Your task to perform on an android device: Open Youtube and go to "Your channel" Image 0: 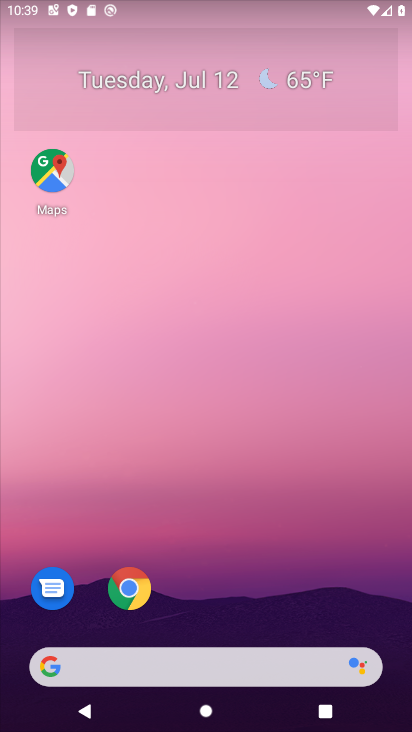
Step 0: drag from (47, 686) to (205, 238)
Your task to perform on an android device: Open Youtube and go to "Your channel" Image 1: 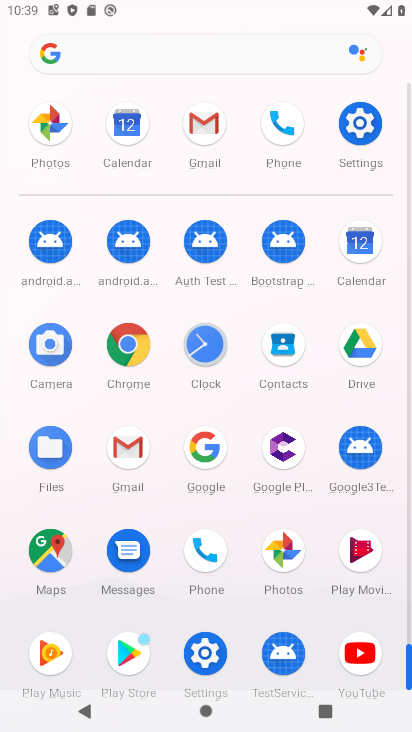
Step 1: click (366, 653)
Your task to perform on an android device: Open Youtube and go to "Your channel" Image 2: 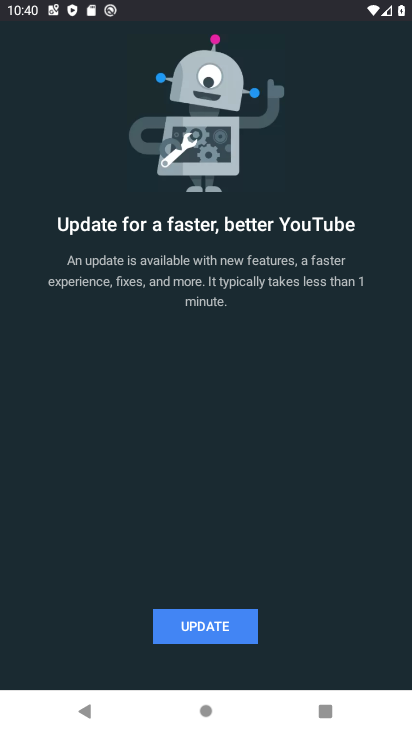
Step 2: click (185, 642)
Your task to perform on an android device: Open Youtube and go to "Your channel" Image 3: 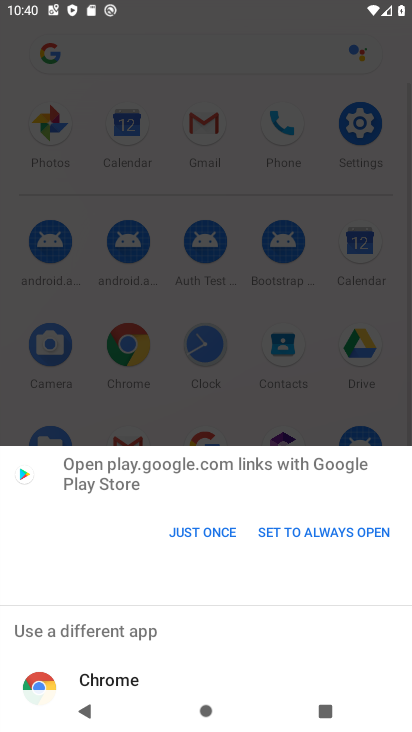
Step 3: click (218, 544)
Your task to perform on an android device: Open Youtube and go to "Your channel" Image 4: 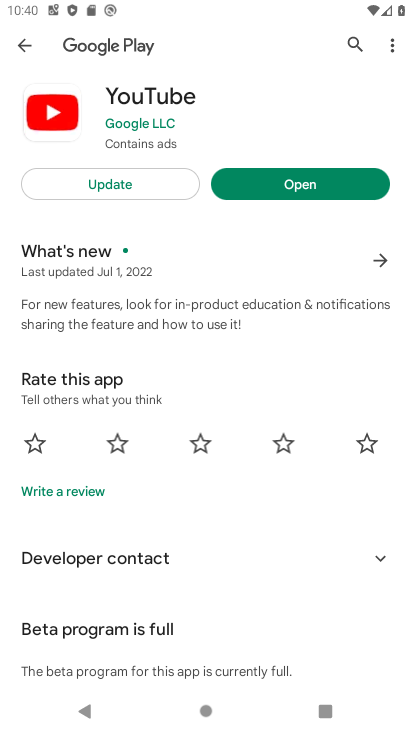
Step 4: click (256, 183)
Your task to perform on an android device: Open Youtube and go to "Your channel" Image 5: 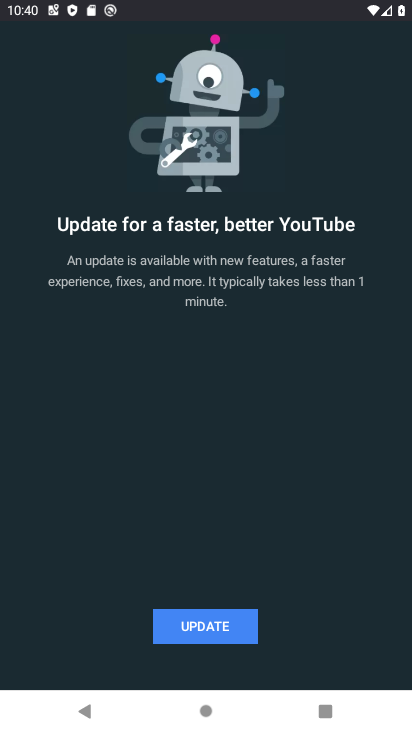
Step 5: task complete